Your task to perform on an android device: move a message to another label in the gmail app Image 0: 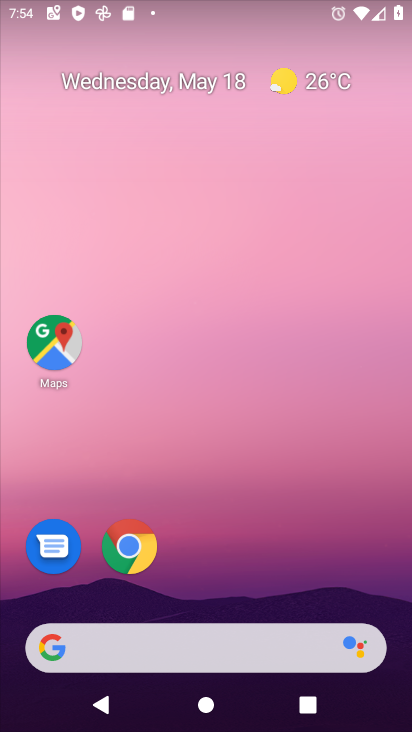
Step 0: drag from (379, 615) to (362, 48)
Your task to perform on an android device: move a message to another label in the gmail app Image 1: 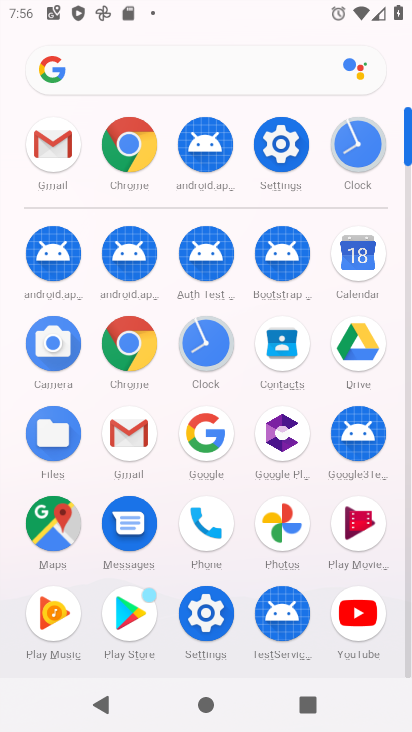
Step 1: click (138, 452)
Your task to perform on an android device: move a message to another label in the gmail app Image 2: 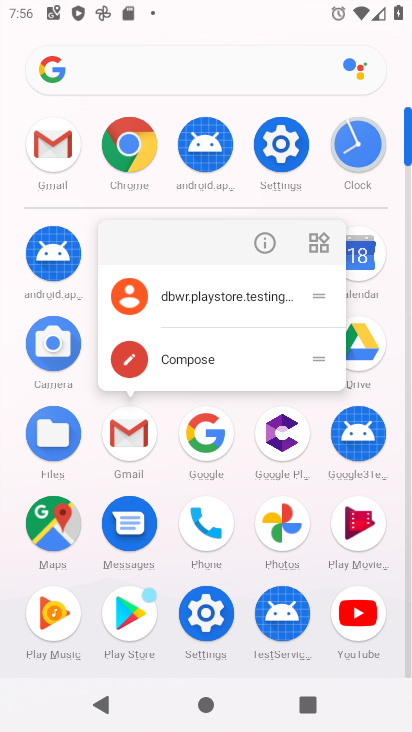
Step 2: click (150, 441)
Your task to perform on an android device: move a message to another label in the gmail app Image 3: 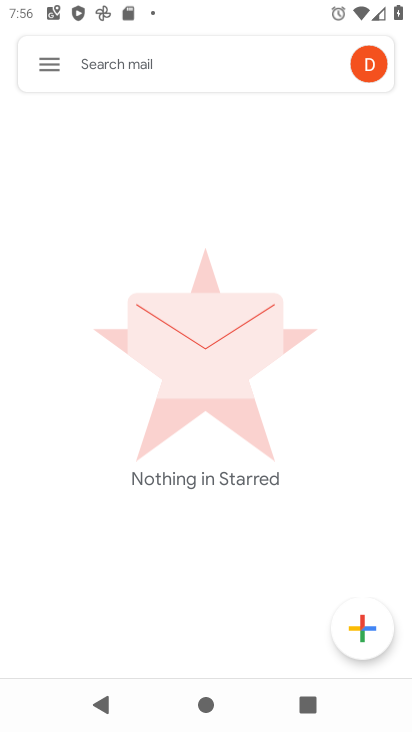
Step 3: task complete